Your task to perform on an android device: Open Youtube and go to the subscriptions tab Image 0: 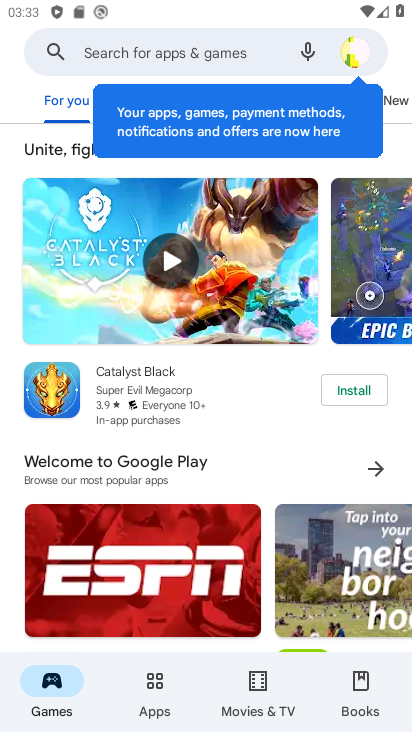
Step 0: press home button
Your task to perform on an android device: Open Youtube and go to the subscriptions tab Image 1: 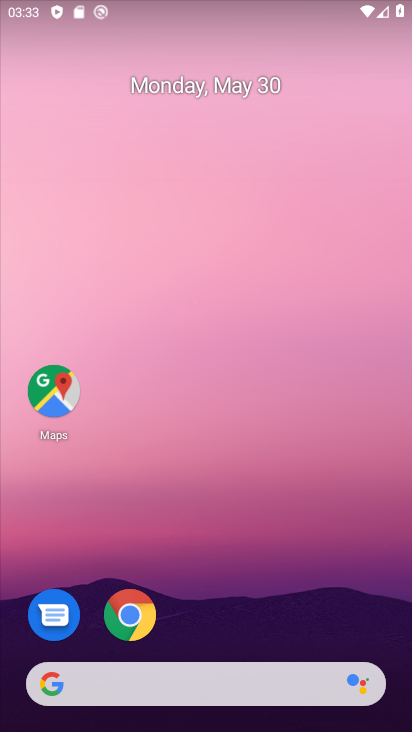
Step 1: drag from (255, 618) to (181, 178)
Your task to perform on an android device: Open Youtube and go to the subscriptions tab Image 2: 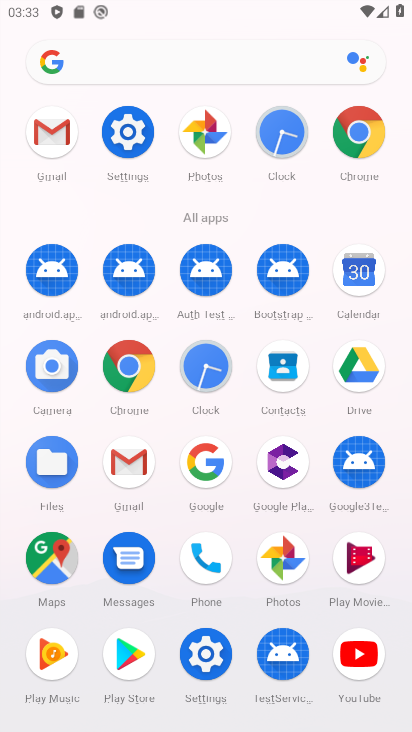
Step 2: click (359, 653)
Your task to perform on an android device: Open Youtube and go to the subscriptions tab Image 3: 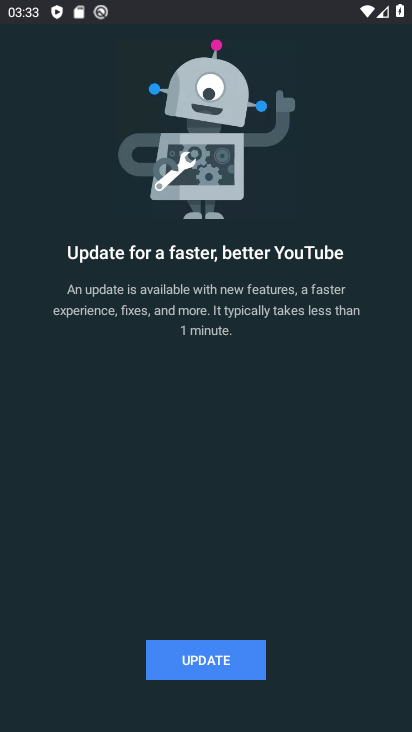
Step 3: click (202, 655)
Your task to perform on an android device: Open Youtube and go to the subscriptions tab Image 4: 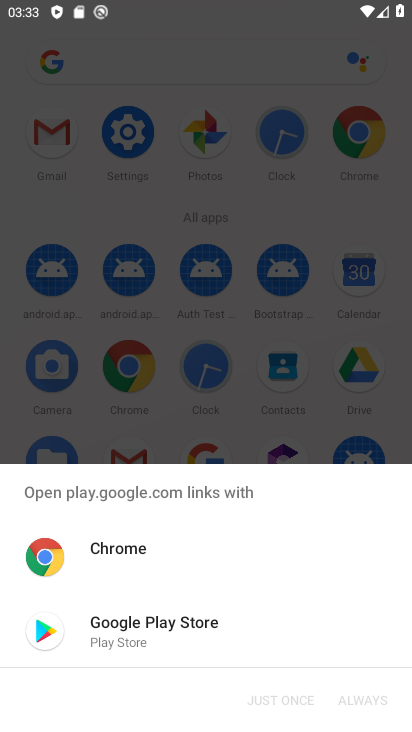
Step 4: click (165, 617)
Your task to perform on an android device: Open Youtube and go to the subscriptions tab Image 5: 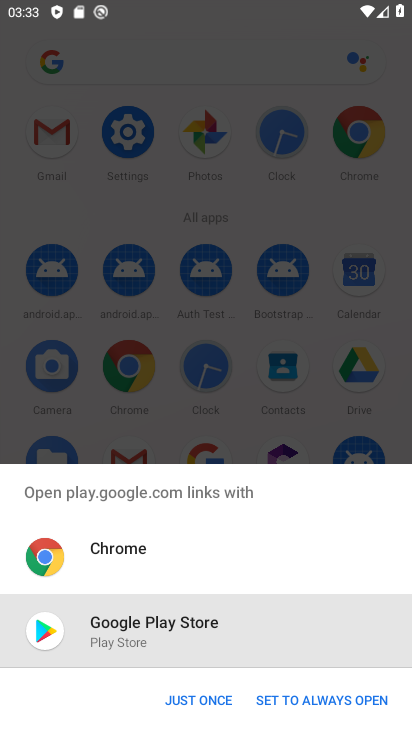
Step 5: click (197, 694)
Your task to perform on an android device: Open Youtube and go to the subscriptions tab Image 6: 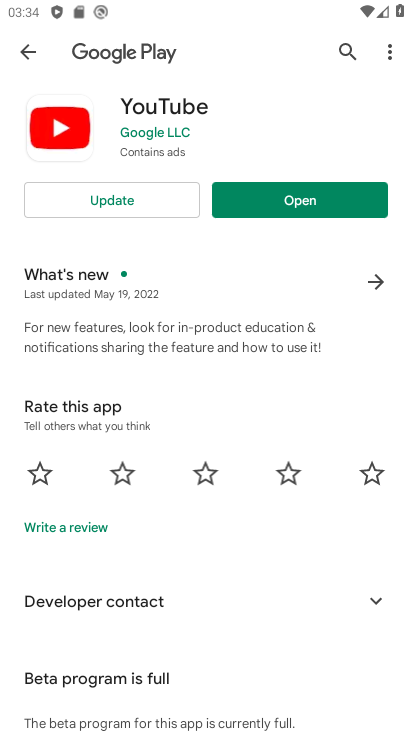
Step 6: click (155, 194)
Your task to perform on an android device: Open Youtube and go to the subscriptions tab Image 7: 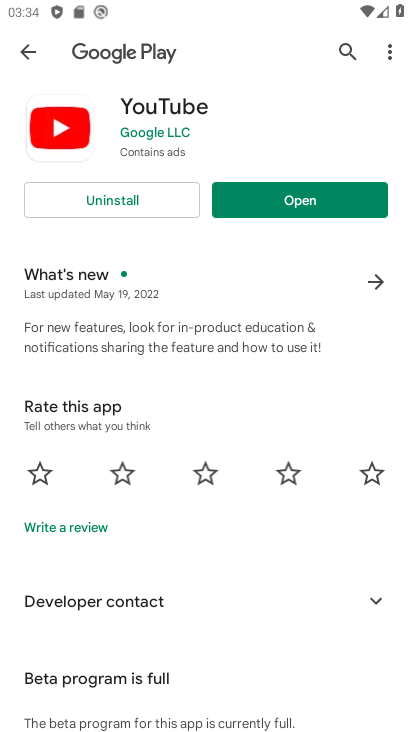
Step 7: click (295, 203)
Your task to perform on an android device: Open Youtube and go to the subscriptions tab Image 8: 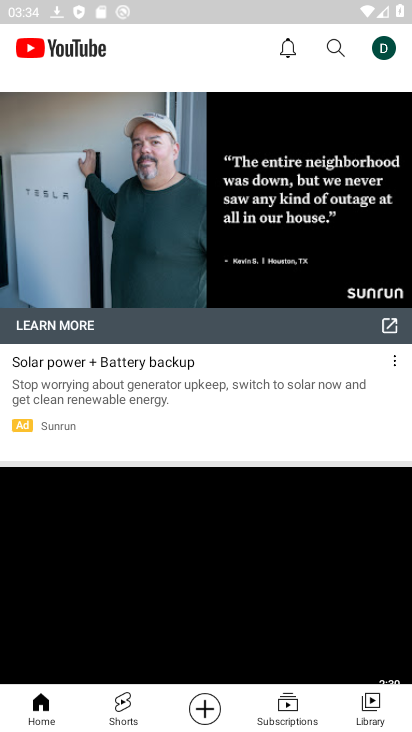
Step 8: click (290, 709)
Your task to perform on an android device: Open Youtube and go to the subscriptions tab Image 9: 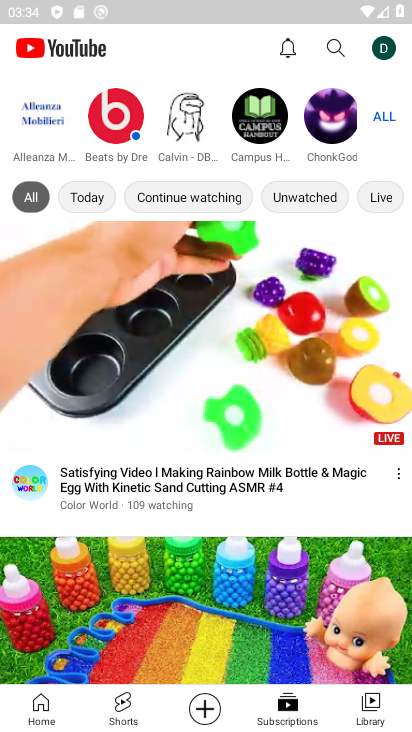
Step 9: task complete